Your task to perform on an android device: toggle show notifications on the lock screen Image 0: 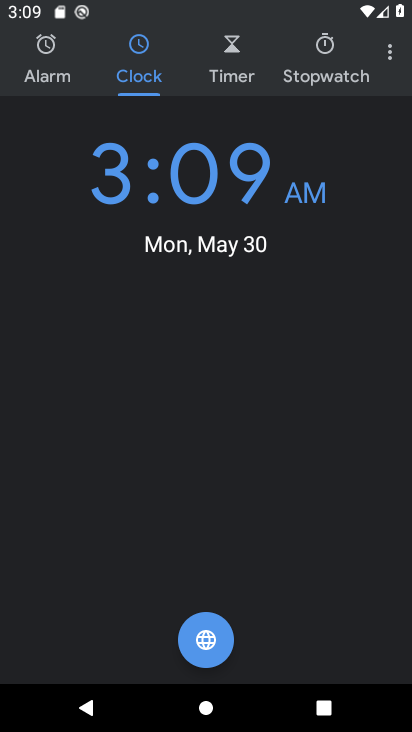
Step 0: press home button
Your task to perform on an android device: toggle show notifications on the lock screen Image 1: 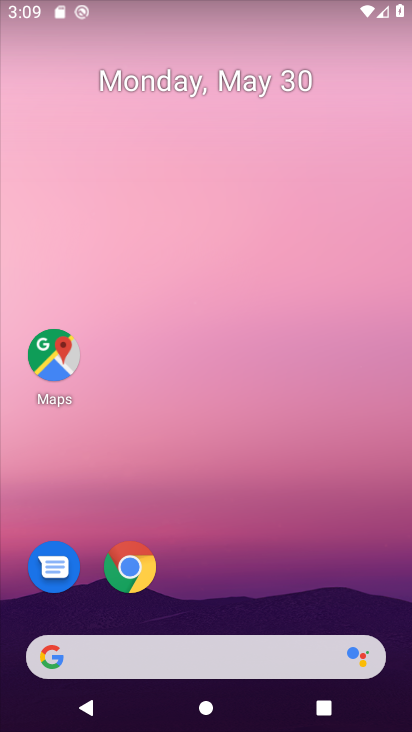
Step 1: drag from (258, 594) to (263, 63)
Your task to perform on an android device: toggle show notifications on the lock screen Image 2: 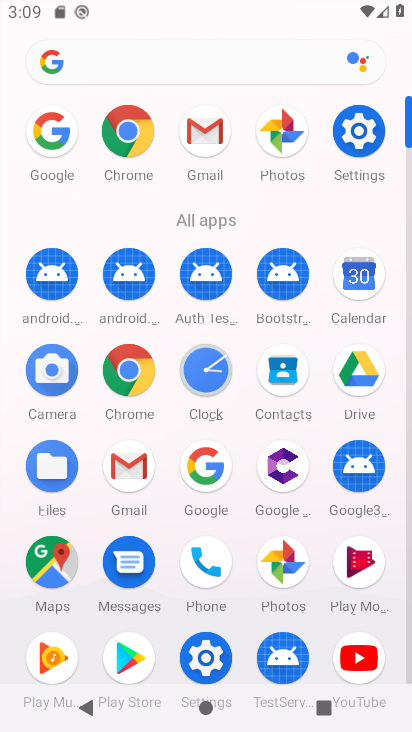
Step 2: click (361, 134)
Your task to perform on an android device: toggle show notifications on the lock screen Image 3: 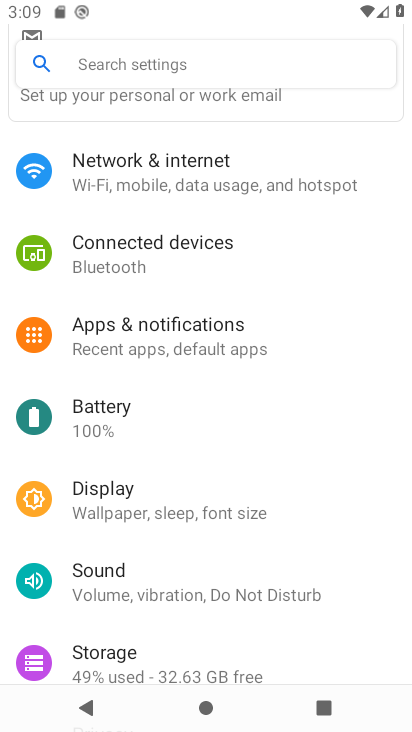
Step 3: click (172, 356)
Your task to perform on an android device: toggle show notifications on the lock screen Image 4: 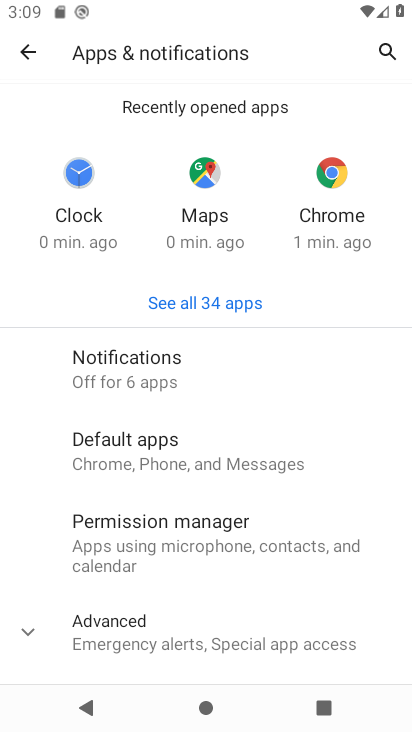
Step 4: click (184, 378)
Your task to perform on an android device: toggle show notifications on the lock screen Image 5: 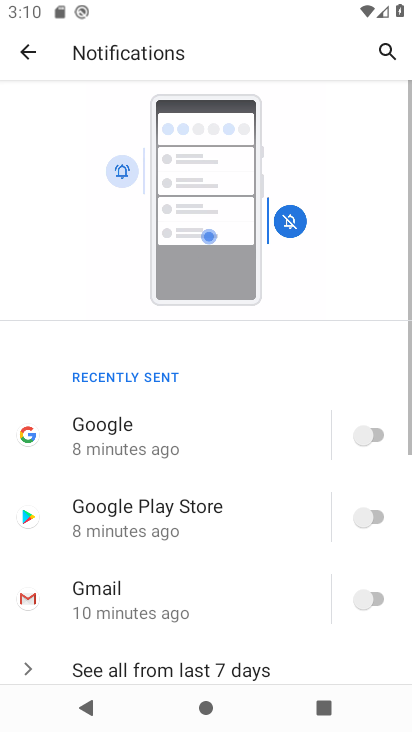
Step 5: drag from (136, 664) to (248, 150)
Your task to perform on an android device: toggle show notifications on the lock screen Image 6: 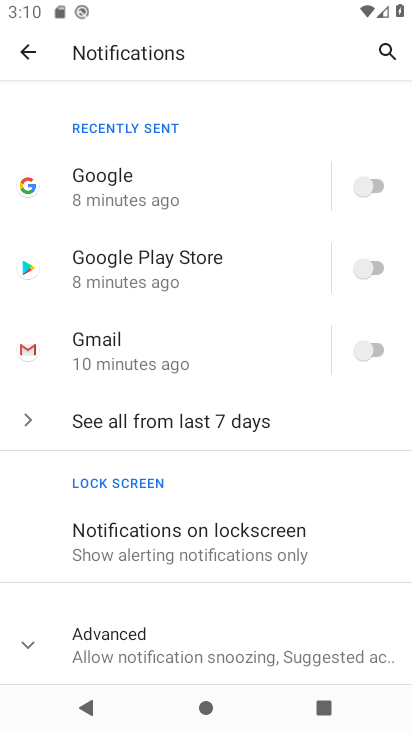
Step 6: click (145, 533)
Your task to perform on an android device: toggle show notifications on the lock screen Image 7: 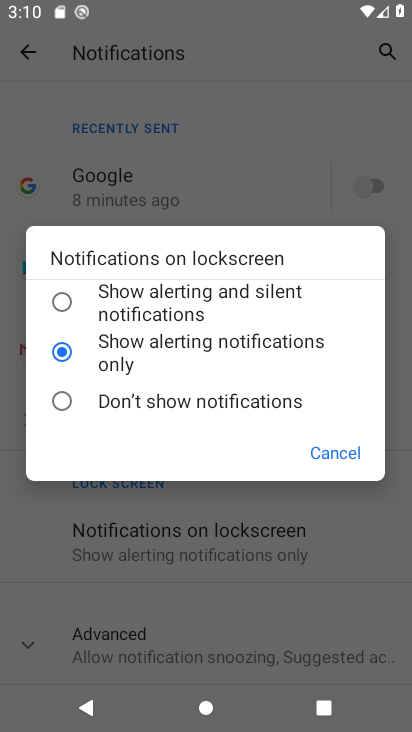
Step 7: click (124, 277)
Your task to perform on an android device: toggle show notifications on the lock screen Image 8: 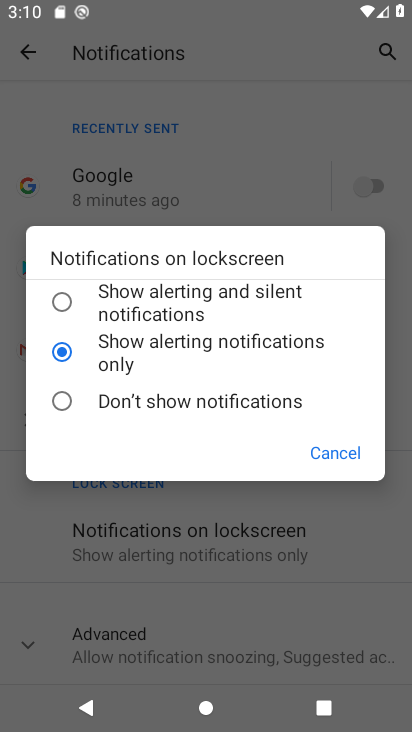
Step 8: click (185, 300)
Your task to perform on an android device: toggle show notifications on the lock screen Image 9: 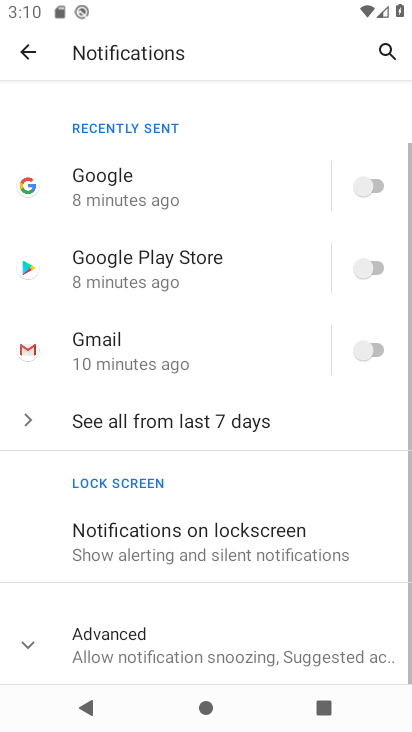
Step 9: task complete